Your task to perform on an android device: stop showing notifications on the lock screen Image 0: 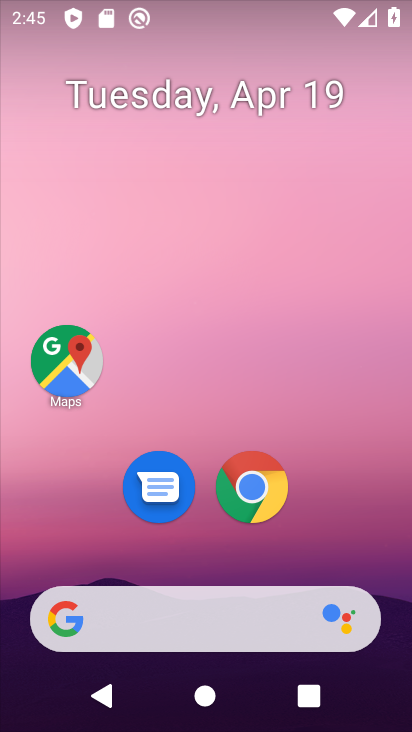
Step 0: drag from (204, 528) to (292, 19)
Your task to perform on an android device: stop showing notifications on the lock screen Image 1: 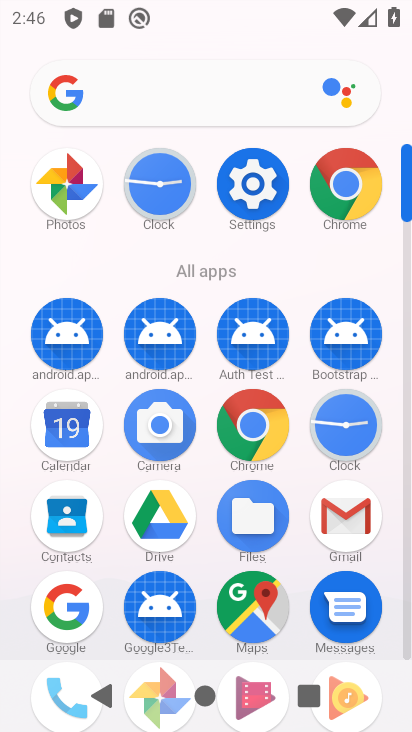
Step 1: click (259, 187)
Your task to perform on an android device: stop showing notifications on the lock screen Image 2: 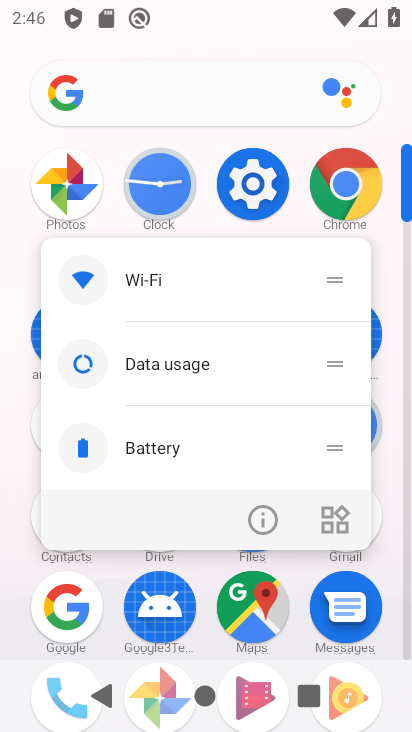
Step 2: click (247, 190)
Your task to perform on an android device: stop showing notifications on the lock screen Image 3: 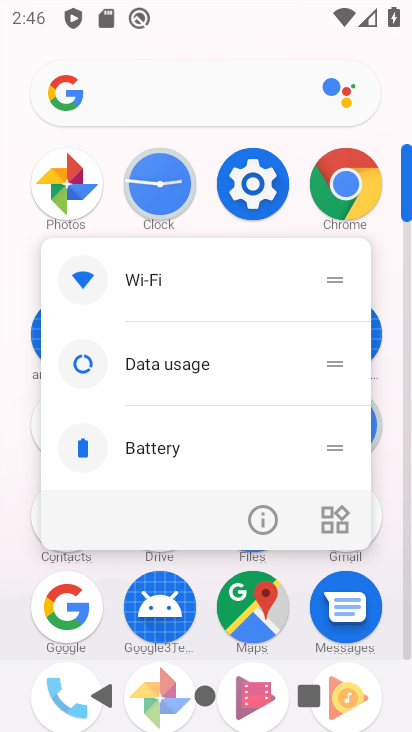
Step 3: click (258, 186)
Your task to perform on an android device: stop showing notifications on the lock screen Image 4: 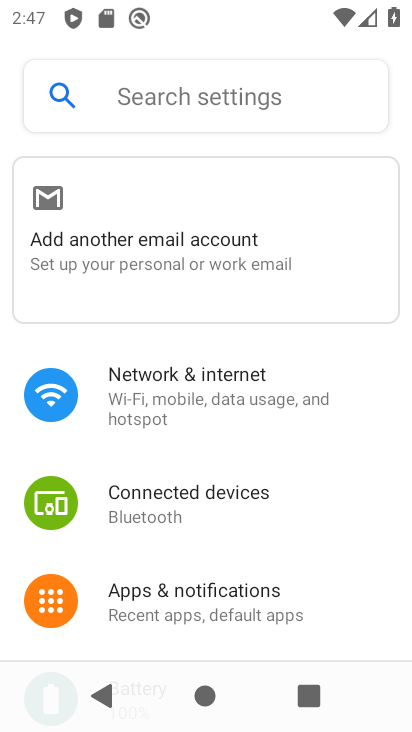
Step 4: drag from (195, 578) to (241, 252)
Your task to perform on an android device: stop showing notifications on the lock screen Image 5: 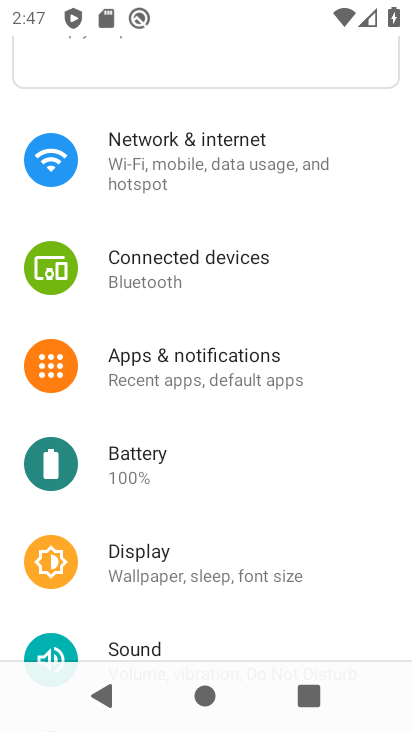
Step 5: click (155, 370)
Your task to perform on an android device: stop showing notifications on the lock screen Image 6: 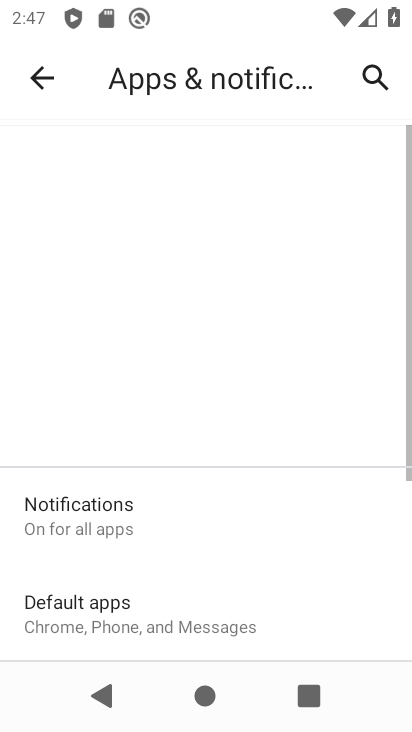
Step 6: drag from (151, 596) to (253, 115)
Your task to perform on an android device: stop showing notifications on the lock screen Image 7: 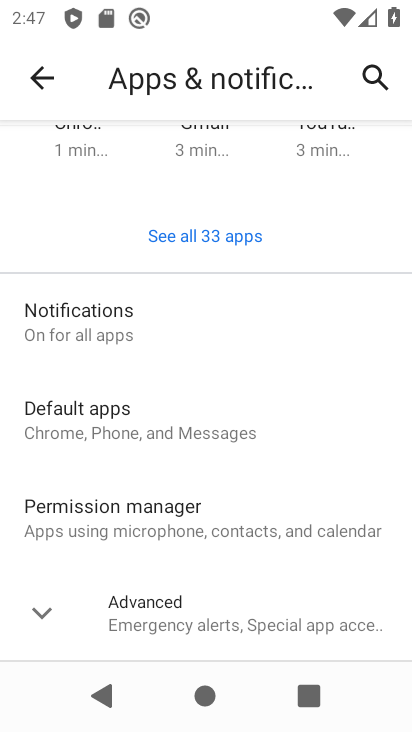
Step 7: drag from (191, 574) to (277, 107)
Your task to perform on an android device: stop showing notifications on the lock screen Image 8: 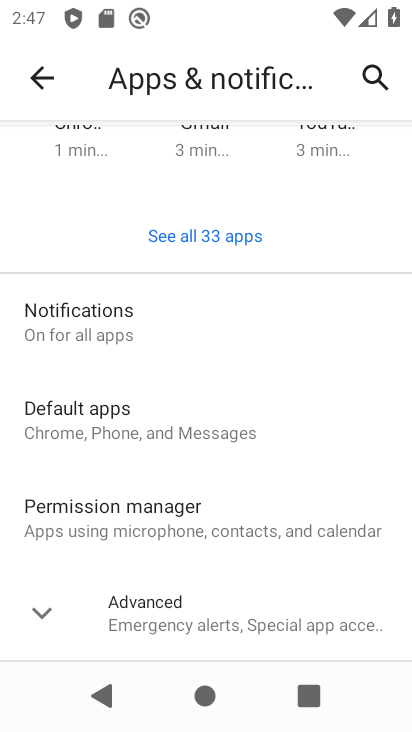
Step 8: click (151, 319)
Your task to perform on an android device: stop showing notifications on the lock screen Image 9: 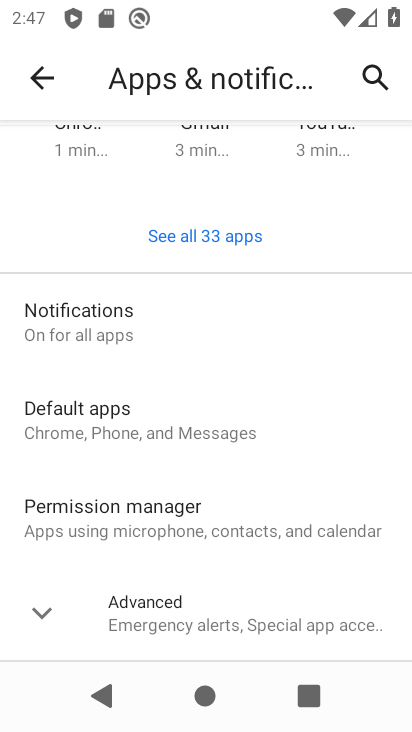
Step 9: drag from (229, 508) to (324, 42)
Your task to perform on an android device: stop showing notifications on the lock screen Image 10: 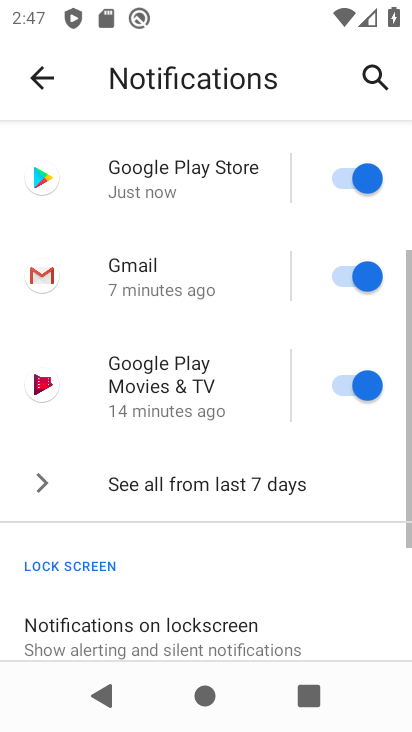
Step 10: drag from (189, 559) to (293, 103)
Your task to perform on an android device: stop showing notifications on the lock screen Image 11: 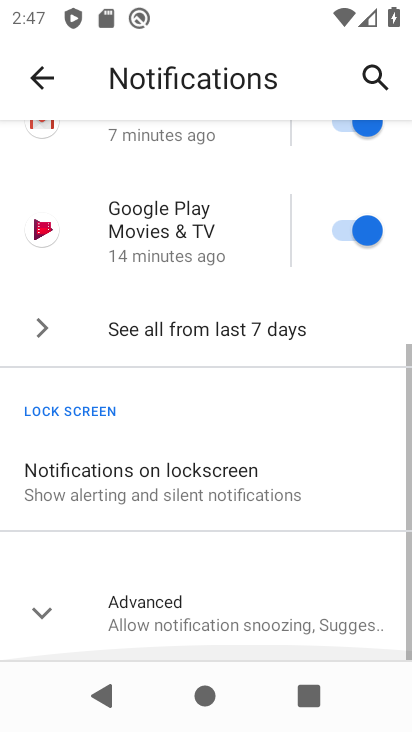
Step 11: click (75, 487)
Your task to perform on an android device: stop showing notifications on the lock screen Image 12: 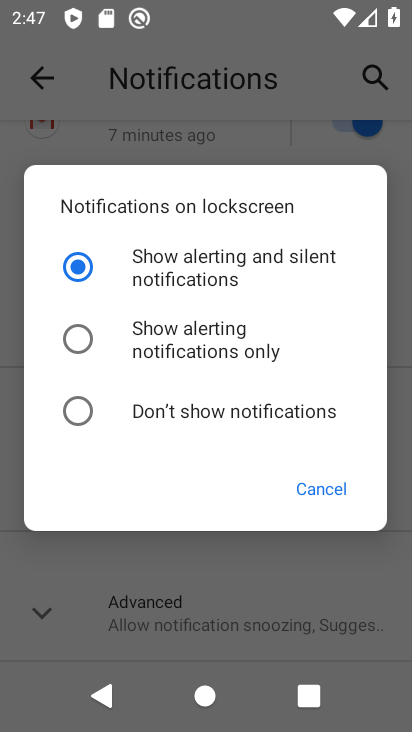
Step 12: click (78, 413)
Your task to perform on an android device: stop showing notifications on the lock screen Image 13: 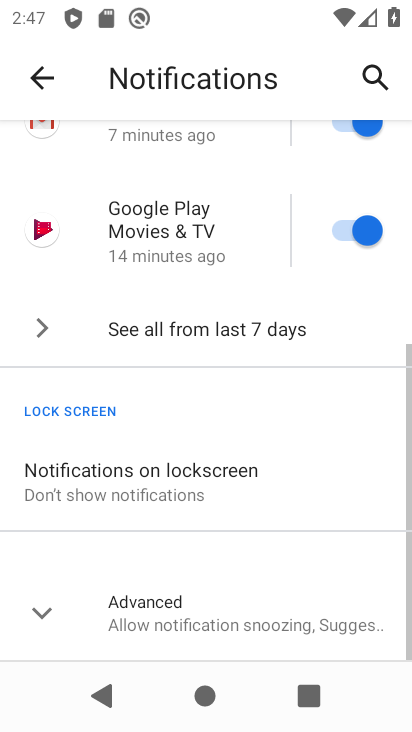
Step 13: task complete